Your task to perform on an android device: Open Maps and search for coffee Image 0: 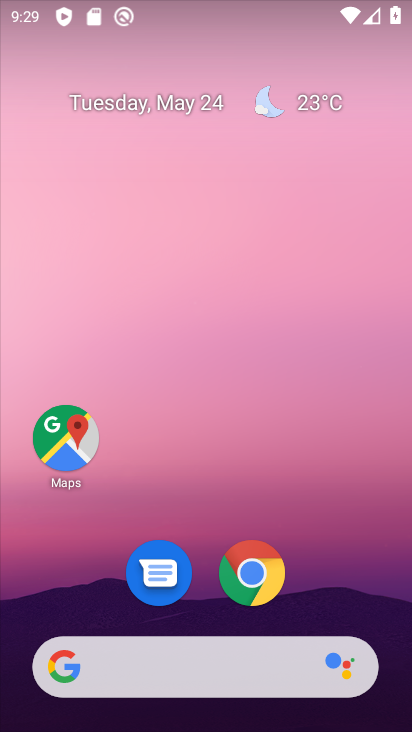
Step 0: click (73, 435)
Your task to perform on an android device: Open Maps and search for coffee Image 1: 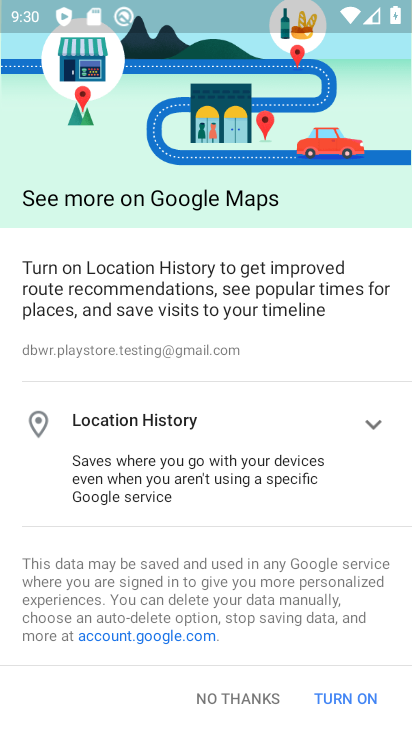
Step 1: click (231, 697)
Your task to perform on an android device: Open Maps and search for coffee Image 2: 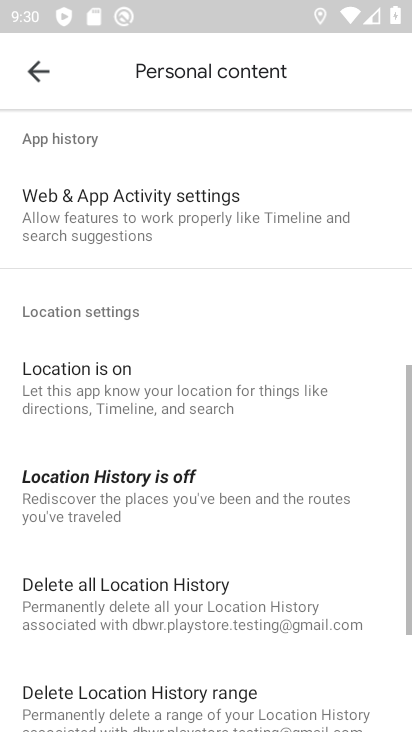
Step 2: press back button
Your task to perform on an android device: Open Maps and search for coffee Image 3: 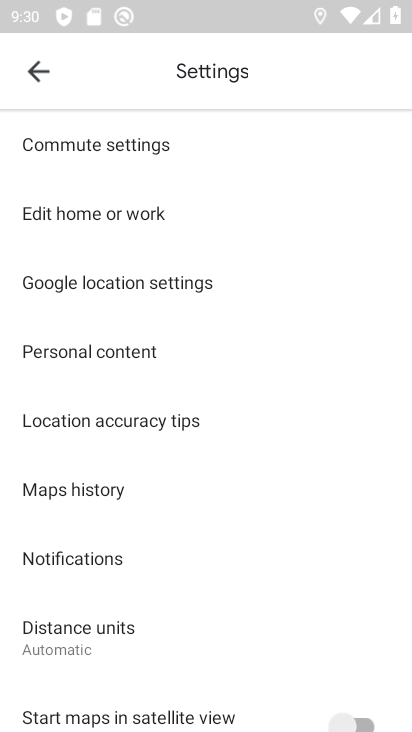
Step 3: press back button
Your task to perform on an android device: Open Maps and search for coffee Image 4: 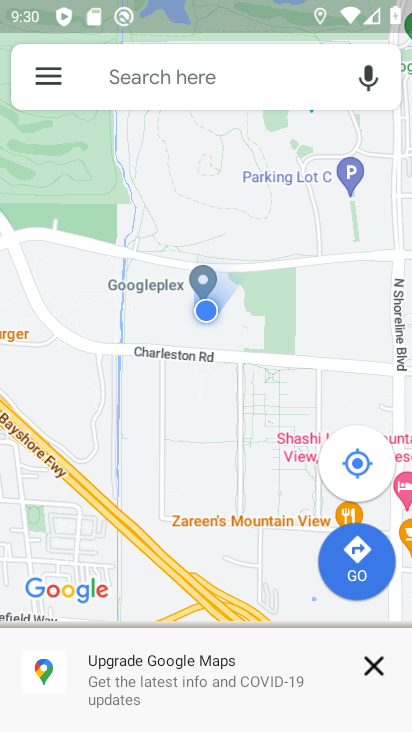
Step 4: click (128, 84)
Your task to perform on an android device: Open Maps and search for coffee Image 5: 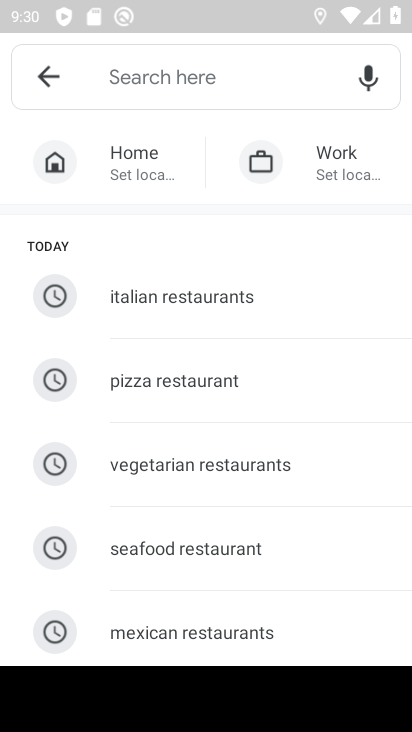
Step 5: type "coffee"
Your task to perform on an android device: Open Maps and search for coffee Image 6: 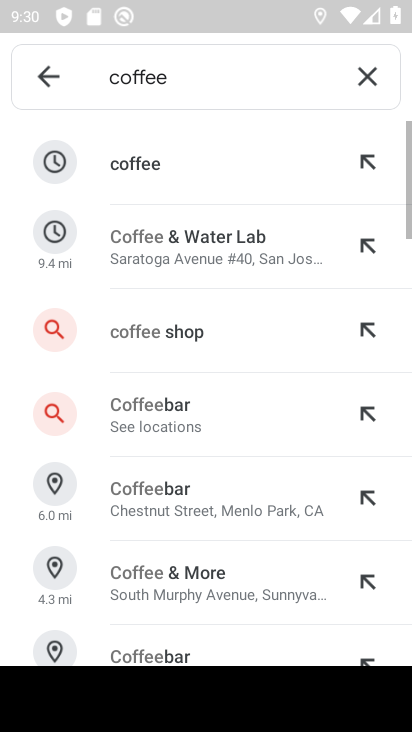
Step 6: click (157, 173)
Your task to perform on an android device: Open Maps and search for coffee Image 7: 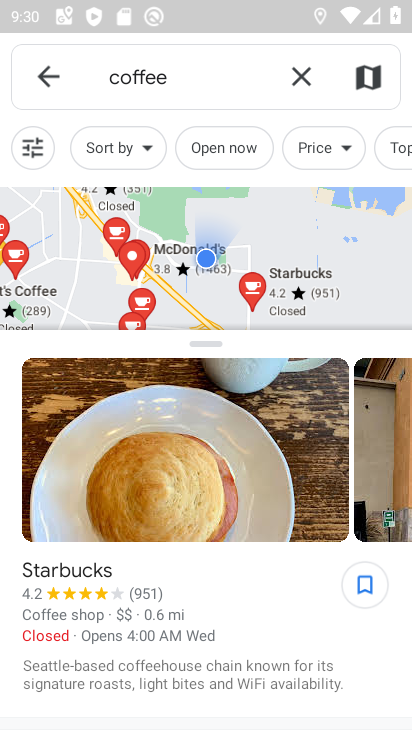
Step 7: task complete